Your task to perform on an android device: Play the last video I watched on Youtube Image 0: 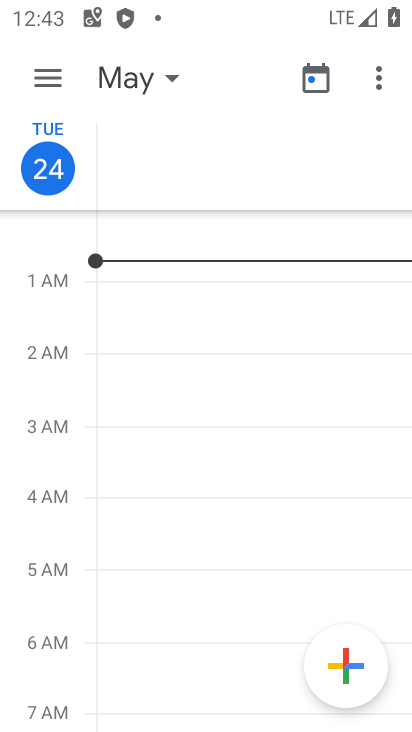
Step 0: press home button
Your task to perform on an android device: Play the last video I watched on Youtube Image 1: 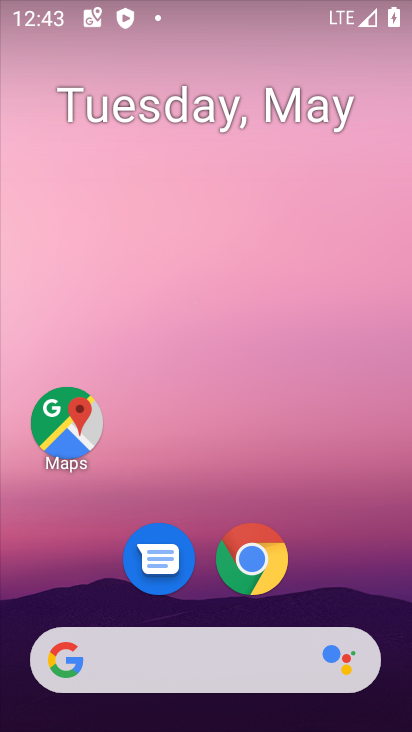
Step 1: drag from (377, 578) to (301, 16)
Your task to perform on an android device: Play the last video I watched on Youtube Image 2: 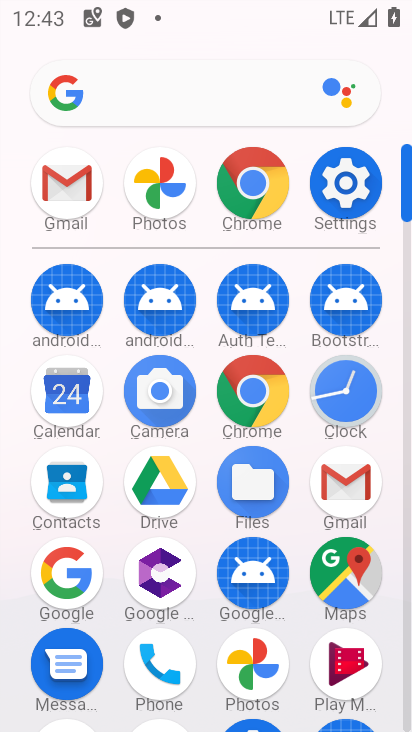
Step 2: click (405, 728)
Your task to perform on an android device: Play the last video I watched on Youtube Image 3: 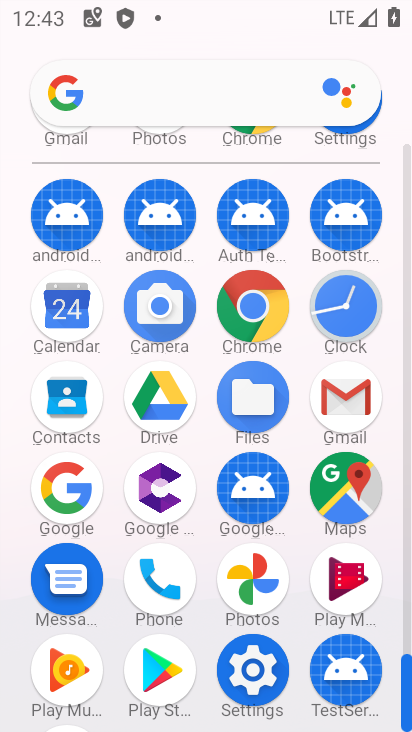
Step 3: drag from (404, 681) to (324, 731)
Your task to perform on an android device: Play the last video I watched on Youtube Image 4: 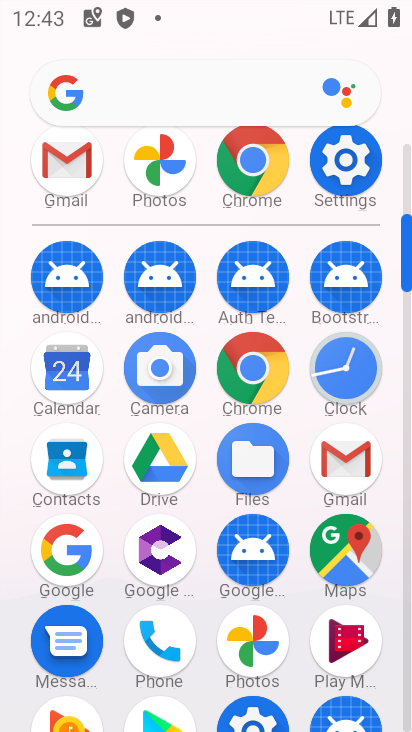
Step 4: click (411, 727)
Your task to perform on an android device: Play the last video I watched on Youtube Image 5: 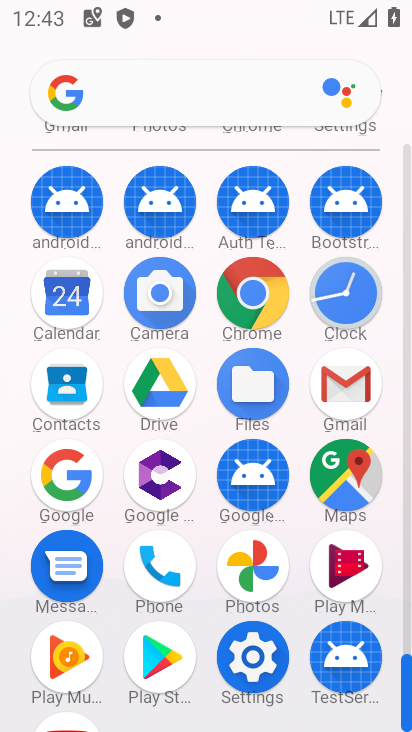
Step 5: click (81, 730)
Your task to perform on an android device: Play the last video I watched on Youtube Image 6: 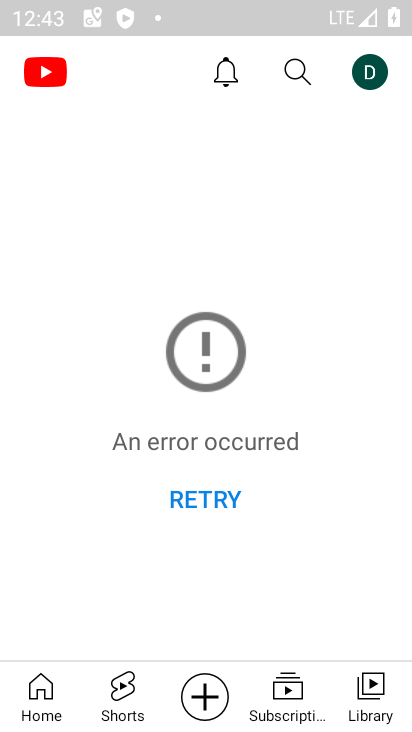
Step 6: click (378, 716)
Your task to perform on an android device: Play the last video I watched on Youtube Image 7: 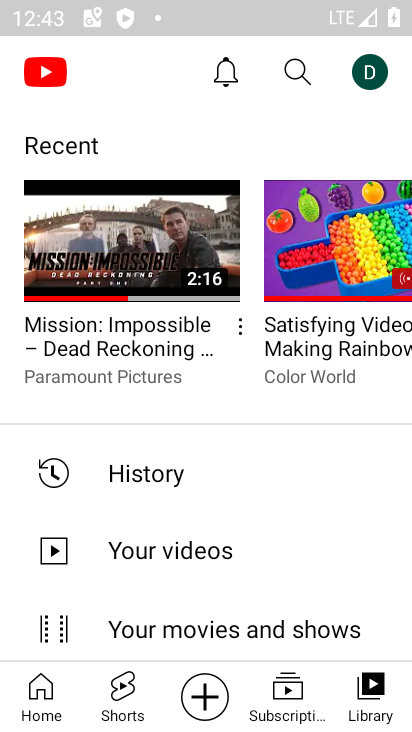
Step 7: click (102, 252)
Your task to perform on an android device: Play the last video I watched on Youtube Image 8: 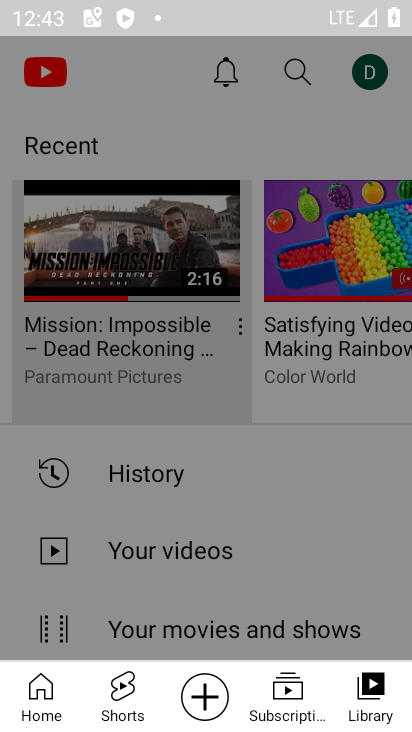
Step 8: task complete